Your task to perform on an android device: Open the map Image 0: 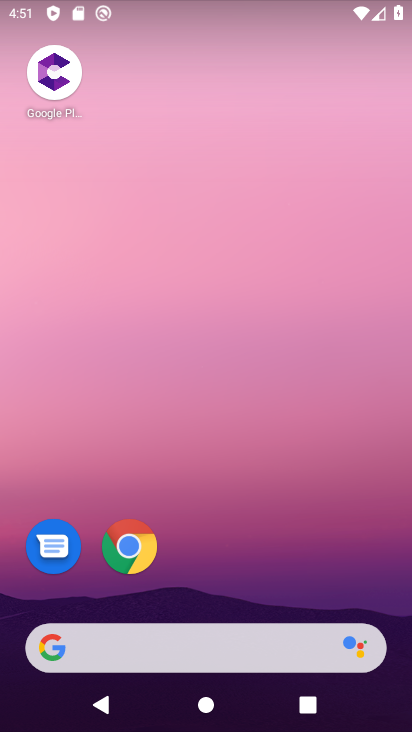
Step 0: drag from (232, 574) to (120, 6)
Your task to perform on an android device: Open the map Image 1: 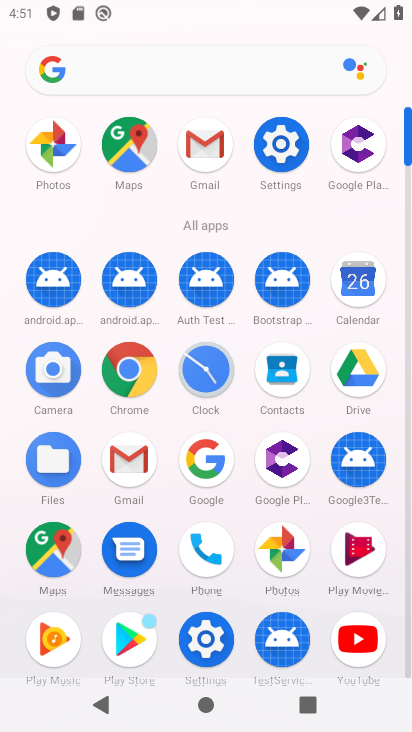
Step 1: click (134, 156)
Your task to perform on an android device: Open the map Image 2: 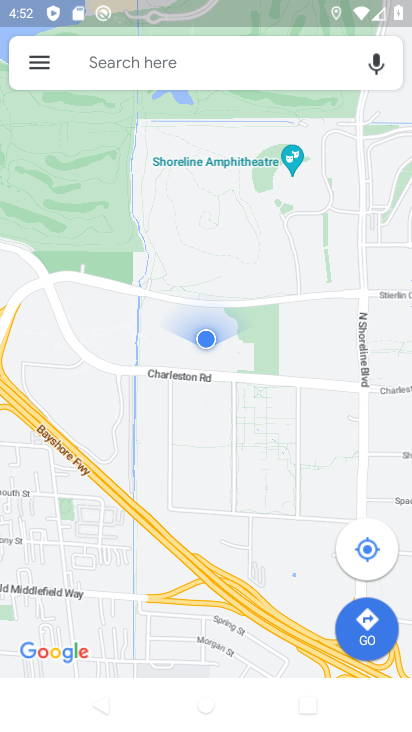
Step 2: task complete